Your task to perform on an android device: turn on priority inbox in the gmail app Image 0: 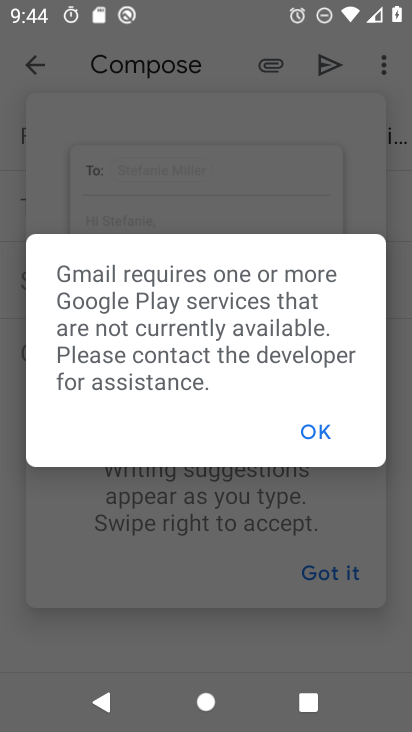
Step 0: press home button
Your task to perform on an android device: turn on priority inbox in the gmail app Image 1: 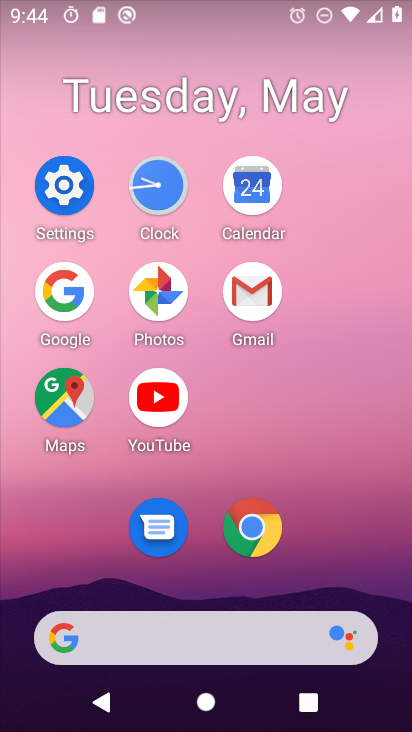
Step 1: click (306, 273)
Your task to perform on an android device: turn on priority inbox in the gmail app Image 2: 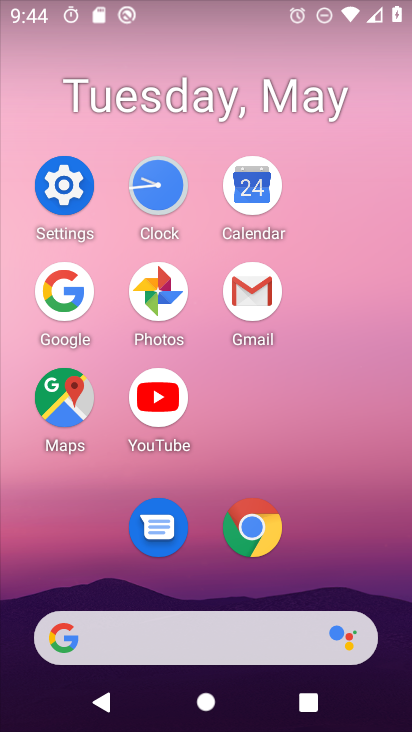
Step 2: click (277, 282)
Your task to perform on an android device: turn on priority inbox in the gmail app Image 3: 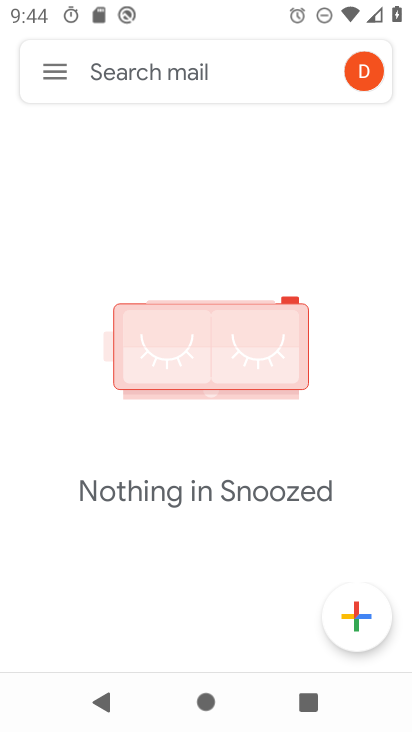
Step 3: click (66, 81)
Your task to perform on an android device: turn on priority inbox in the gmail app Image 4: 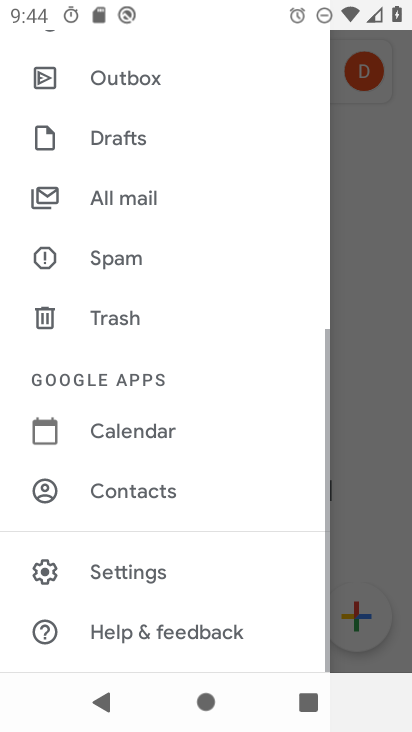
Step 4: click (239, 559)
Your task to perform on an android device: turn on priority inbox in the gmail app Image 5: 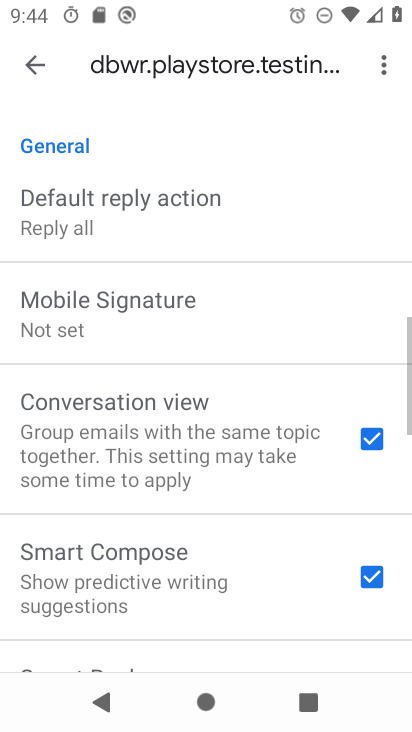
Step 5: task complete